Your task to perform on an android device: check out phone information Image 0: 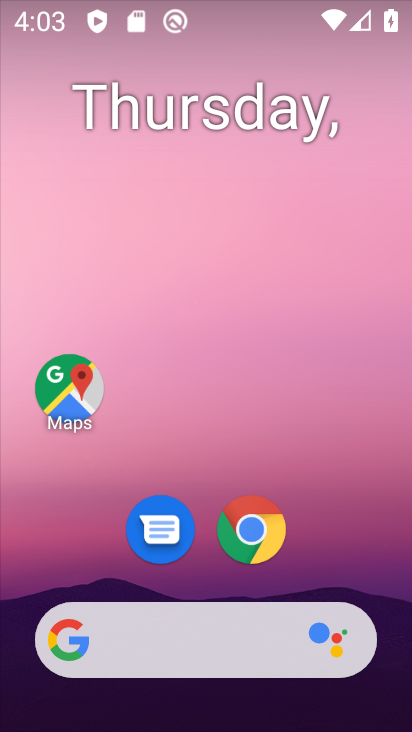
Step 0: drag from (174, 697) to (178, 87)
Your task to perform on an android device: check out phone information Image 1: 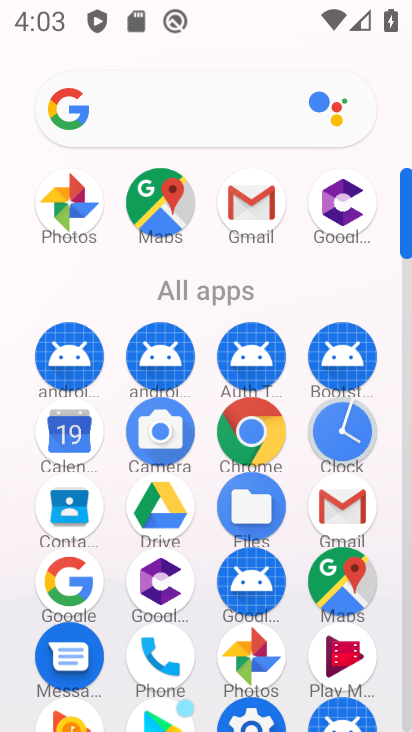
Step 1: drag from (197, 635) to (197, 292)
Your task to perform on an android device: check out phone information Image 2: 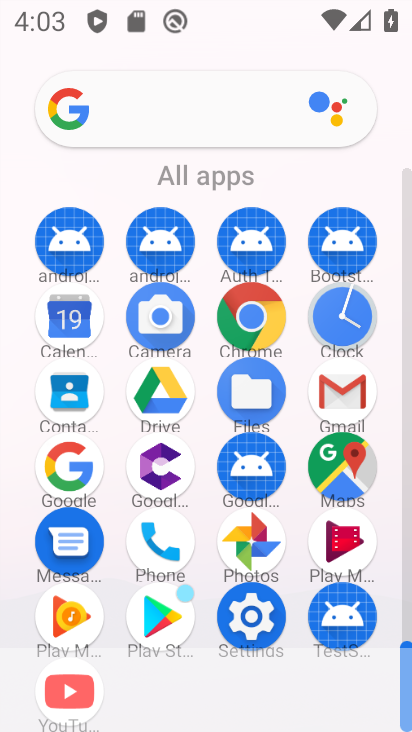
Step 2: click (263, 623)
Your task to perform on an android device: check out phone information Image 3: 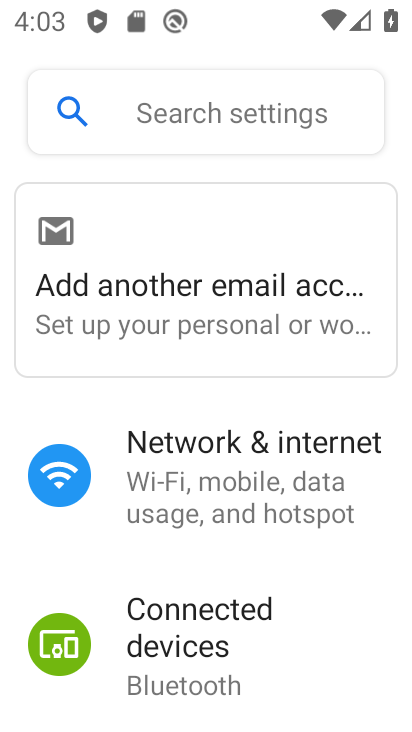
Step 3: drag from (210, 708) to (169, 352)
Your task to perform on an android device: check out phone information Image 4: 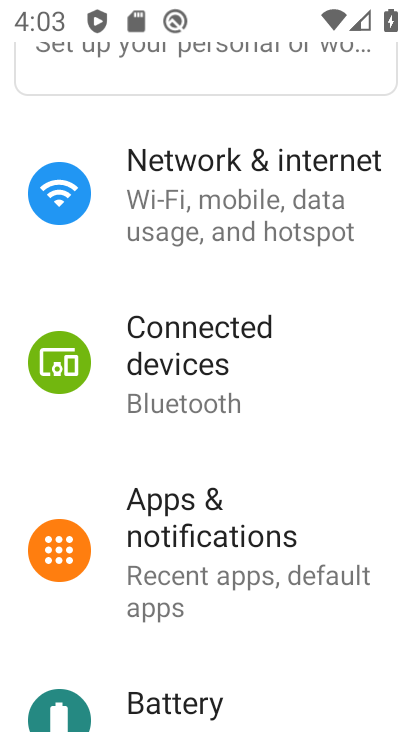
Step 4: drag from (206, 601) to (207, 164)
Your task to perform on an android device: check out phone information Image 5: 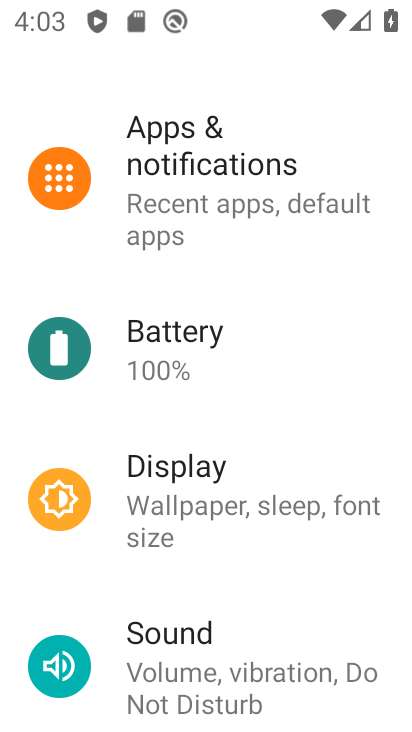
Step 5: drag from (260, 632) to (264, 227)
Your task to perform on an android device: check out phone information Image 6: 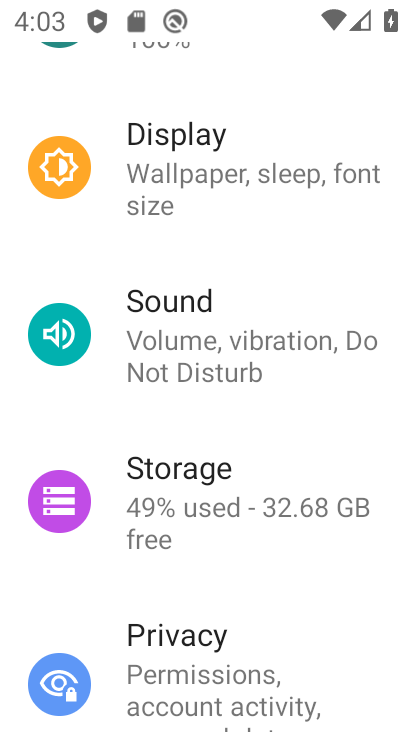
Step 6: drag from (233, 684) to (216, 316)
Your task to perform on an android device: check out phone information Image 7: 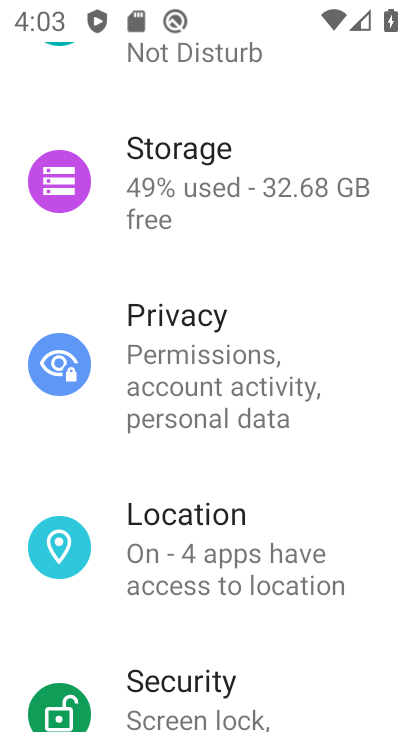
Step 7: drag from (187, 653) to (192, 247)
Your task to perform on an android device: check out phone information Image 8: 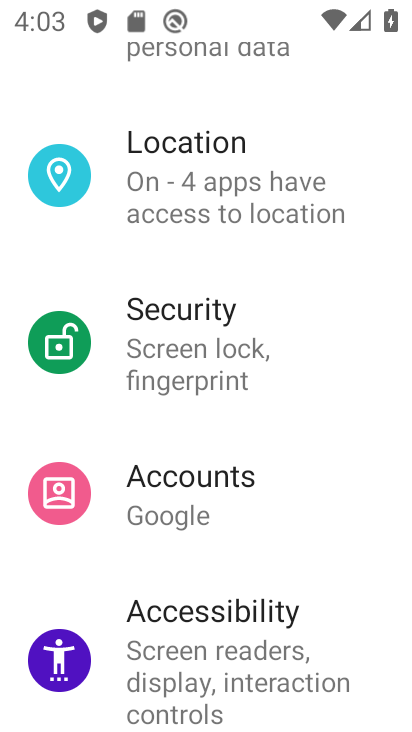
Step 8: drag from (224, 653) to (220, 215)
Your task to perform on an android device: check out phone information Image 9: 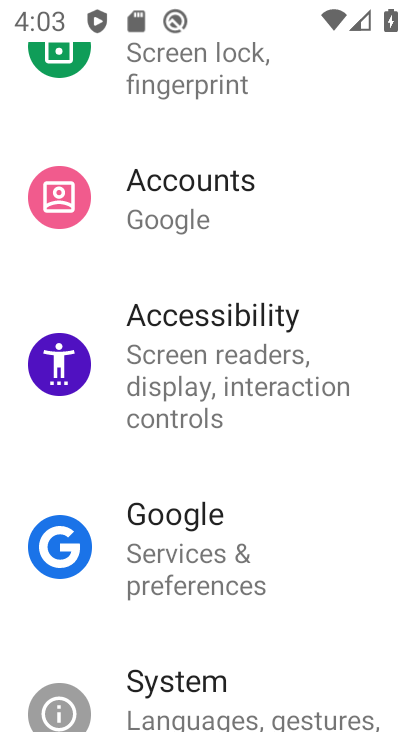
Step 9: drag from (204, 657) to (210, 180)
Your task to perform on an android device: check out phone information Image 10: 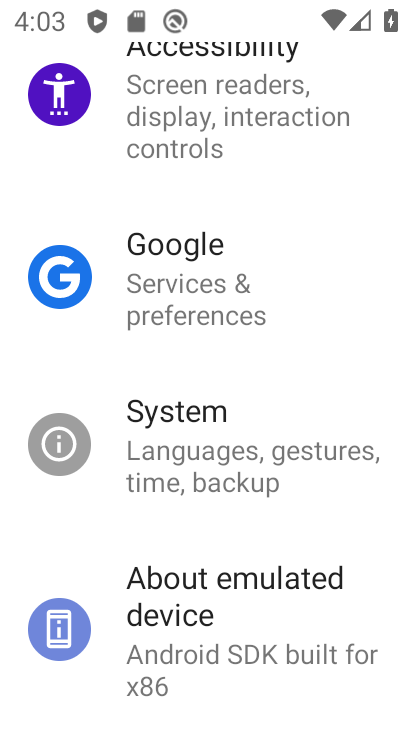
Step 10: drag from (216, 682) to (195, 325)
Your task to perform on an android device: check out phone information Image 11: 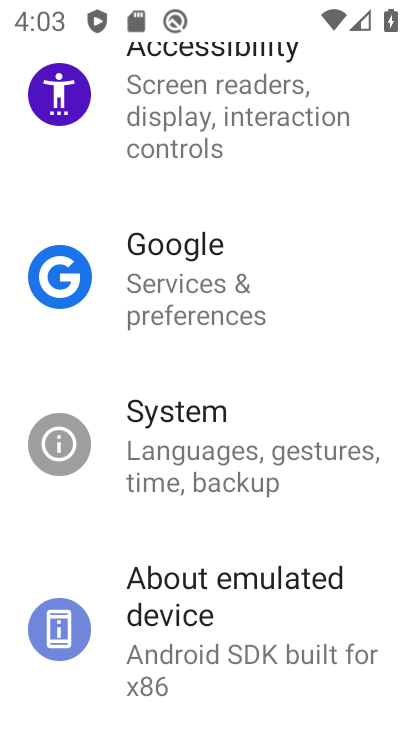
Step 11: click (183, 618)
Your task to perform on an android device: check out phone information Image 12: 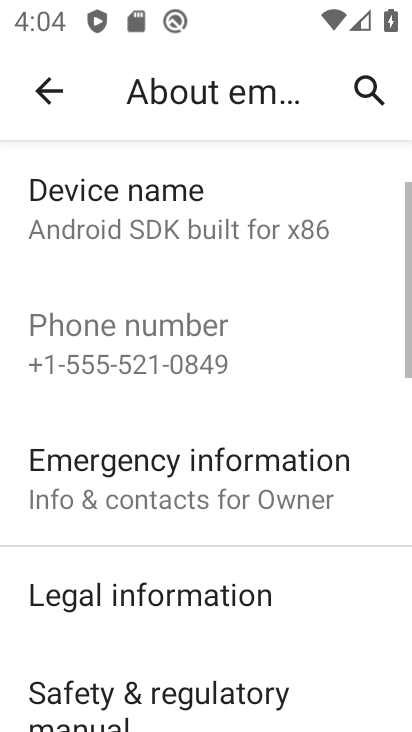
Step 12: task complete